Your task to perform on an android device: open app "Microsoft Excel" (install if not already installed) Image 0: 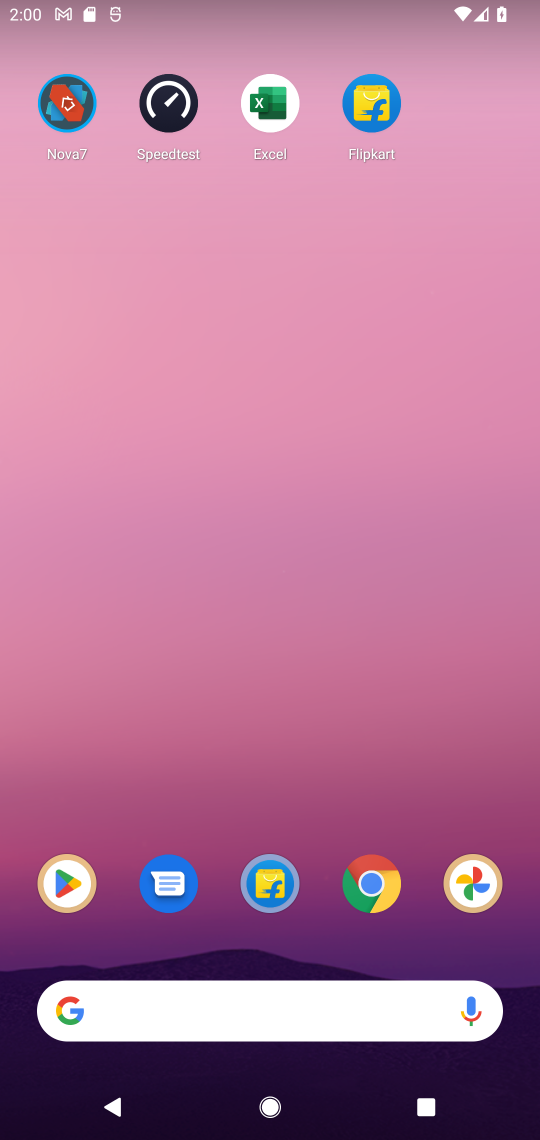
Step 0: click (59, 891)
Your task to perform on an android device: open app "Microsoft Excel" (install if not already installed) Image 1: 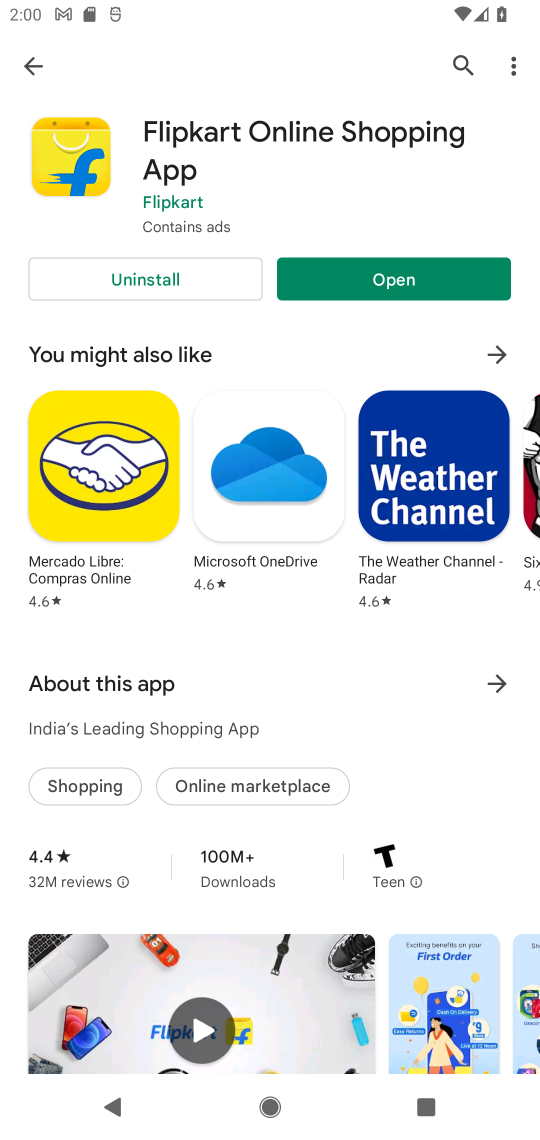
Step 1: press home button
Your task to perform on an android device: open app "Microsoft Excel" (install if not already installed) Image 2: 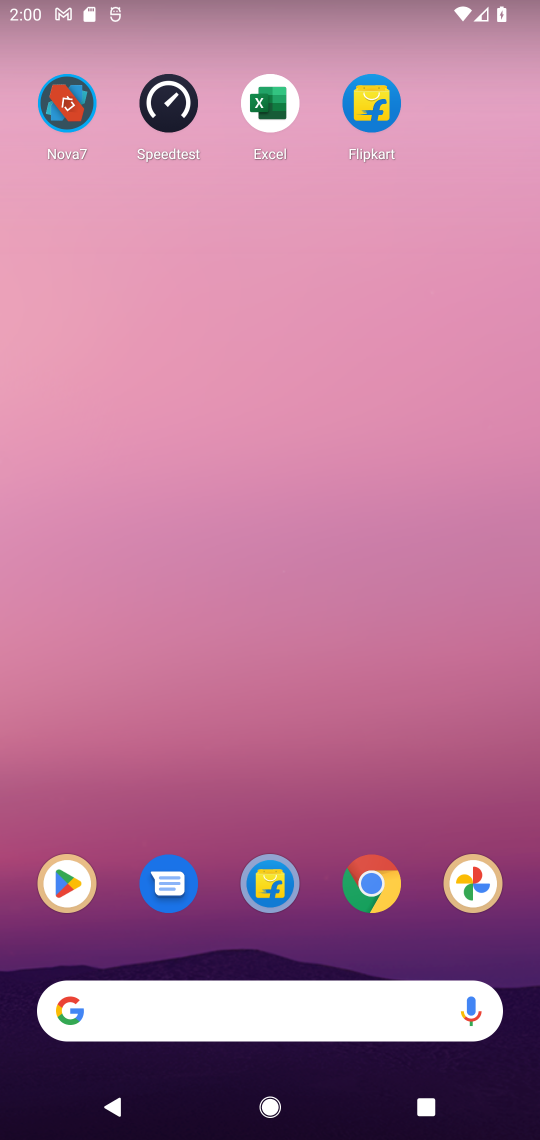
Step 2: click (69, 874)
Your task to perform on an android device: open app "Microsoft Excel" (install if not already installed) Image 3: 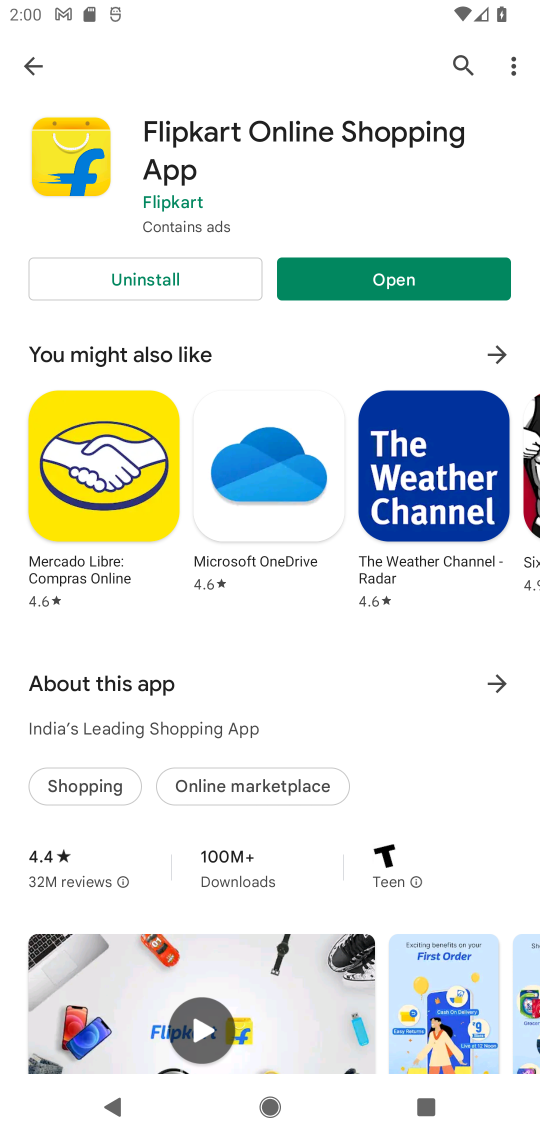
Step 3: click (32, 63)
Your task to perform on an android device: open app "Microsoft Excel" (install if not already installed) Image 4: 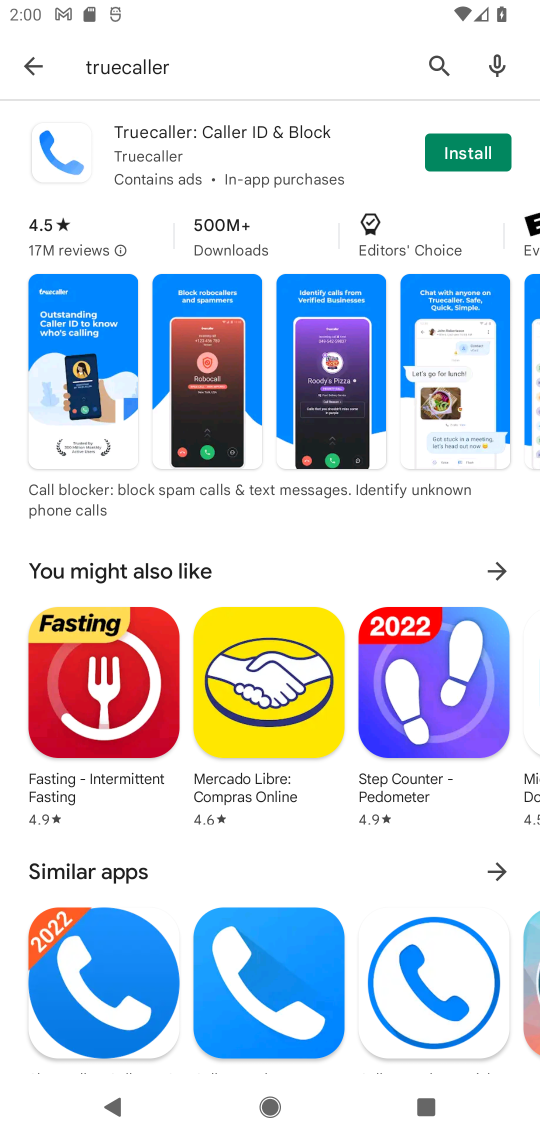
Step 4: click (434, 62)
Your task to perform on an android device: open app "Microsoft Excel" (install if not already installed) Image 5: 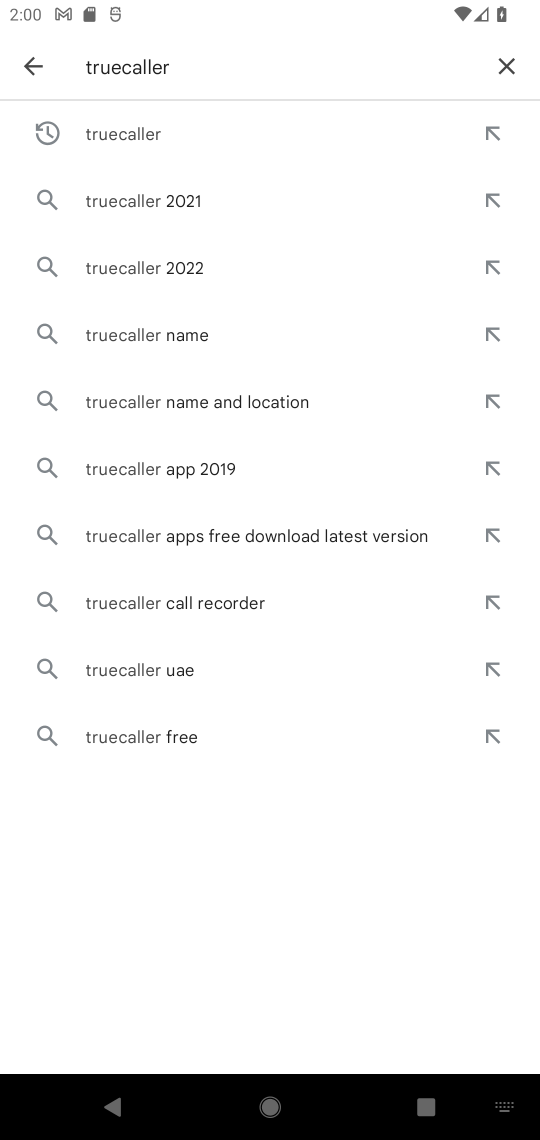
Step 5: click (501, 60)
Your task to perform on an android device: open app "Microsoft Excel" (install if not already installed) Image 6: 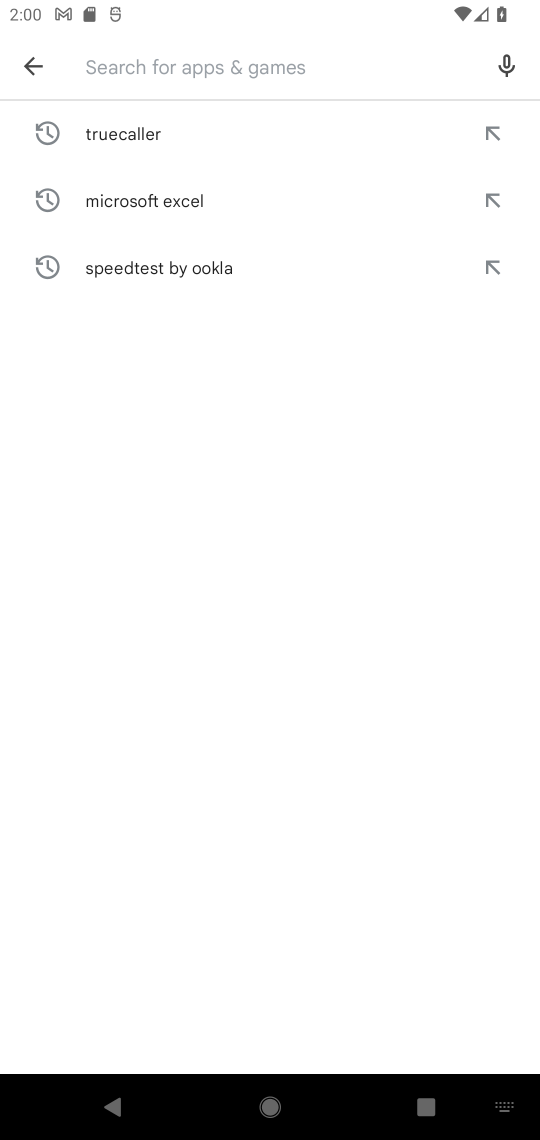
Step 6: type "Microsoft Excel"
Your task to perform on an android device: open app "Microsoft Excel" (install if not already installed) Image 7: 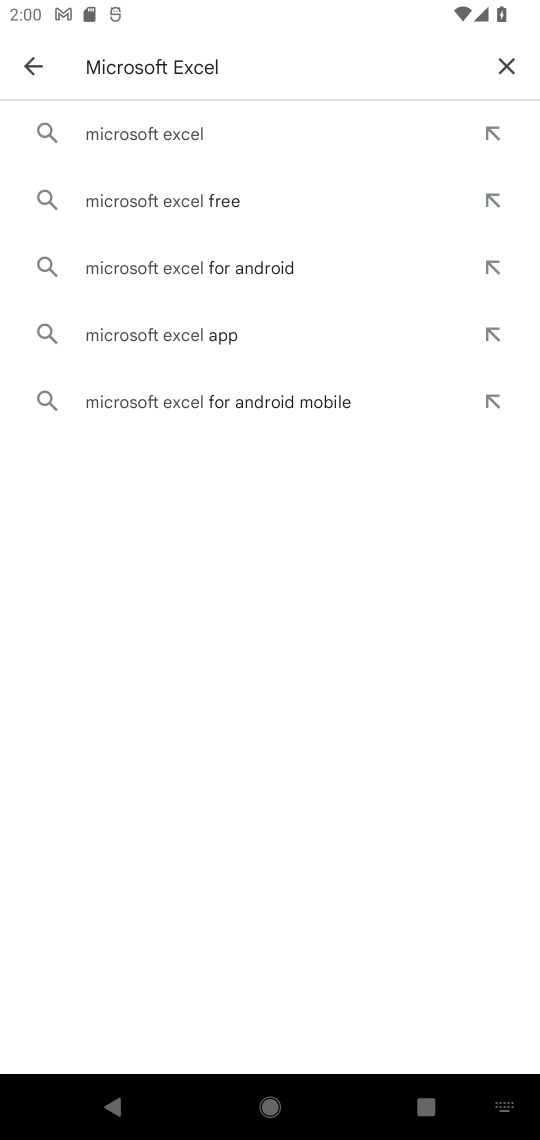
Step 7: click (187, 132)
Your task to perform on an android device: open app "Microsoft Excel" (install if not already installed) Image 8: 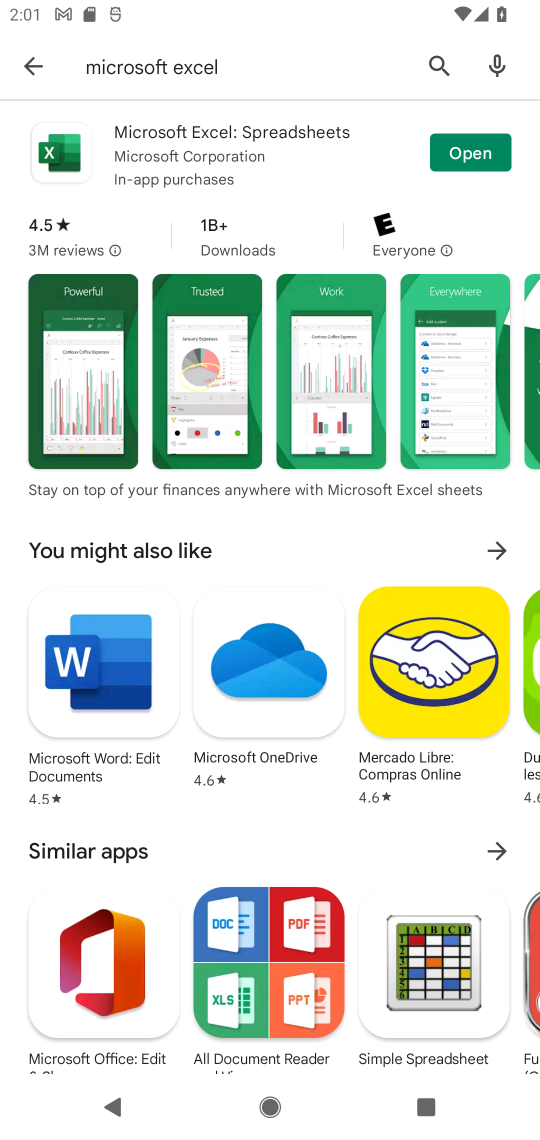
Step 8: click (465, 153)
Your task to perform on an android device: open app "Microsoft Excel" (install if not already installed) Image 9: 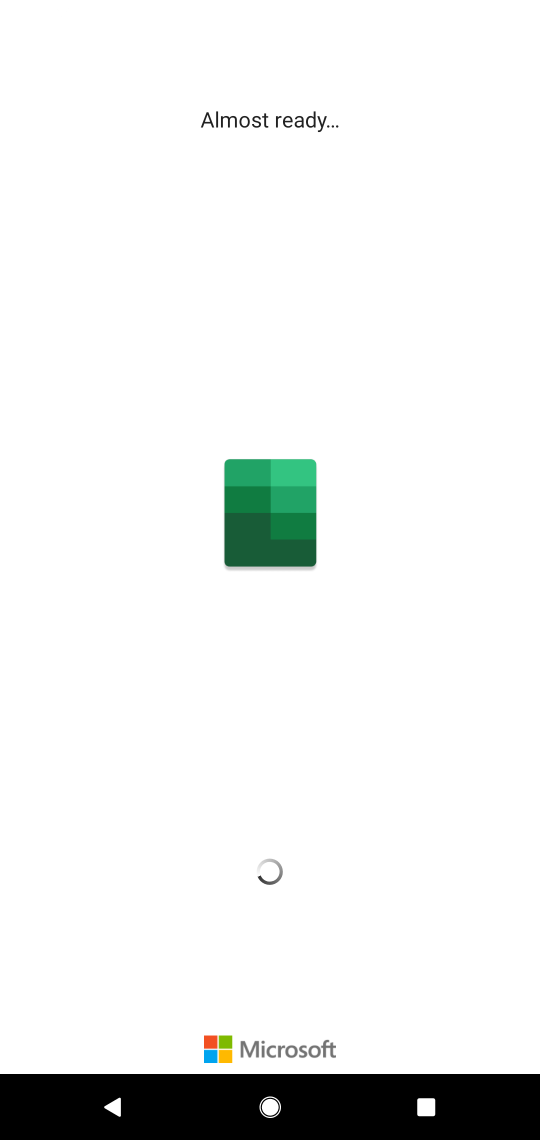
Step 9: task complete